Your task to perform on an android device: Go to sound settings Image 0: 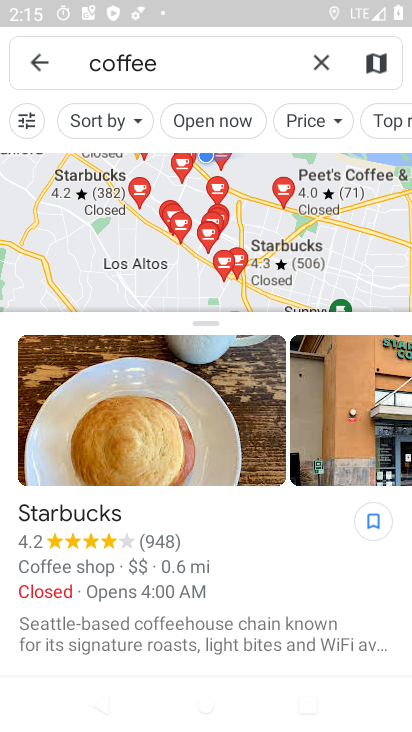
Step 0: press home button
Your task to perform on an android device: Go to sound settings Image 1: 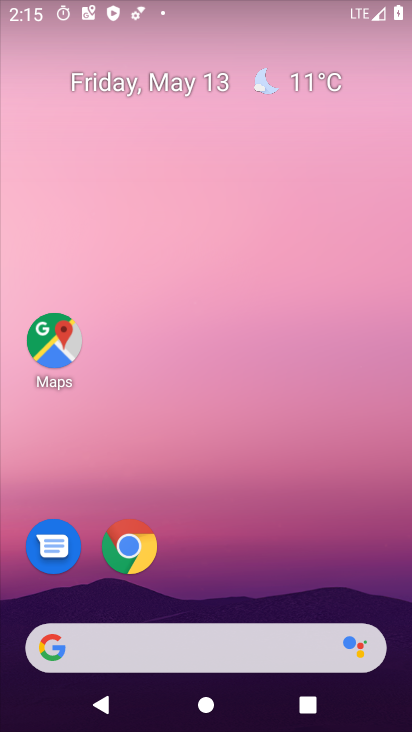
Step 1: drag from (226, 483) to (244, 94)
Your task to perform on an android device: Go to sound settings Image 2: 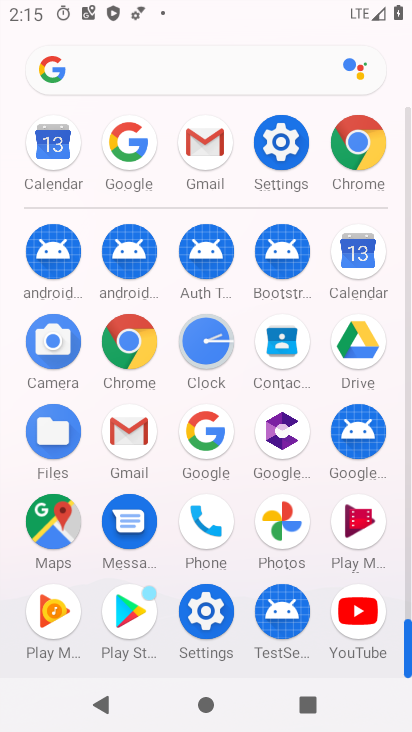
Step 2: click (297, 158)
Your task to perform on an android device: Go to sound settings Image 3: 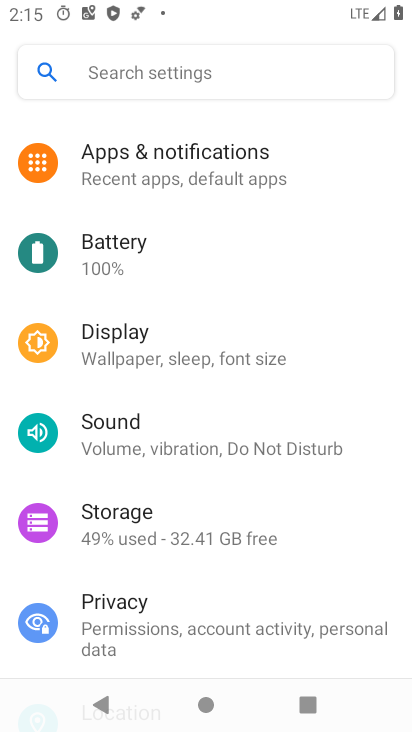
Step 3: click (216, 442)
Your task to perform on an android device: Go to sound settings Image 4: 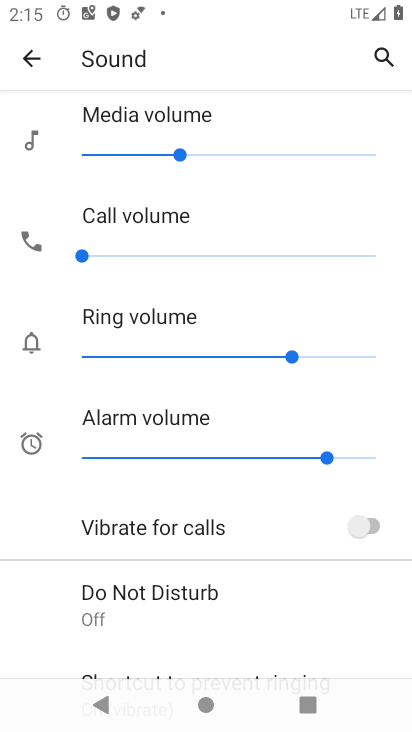
Step 4: task complete